Your task to perform on an android device: Search for Mexican restaurants on Maps Image 0: 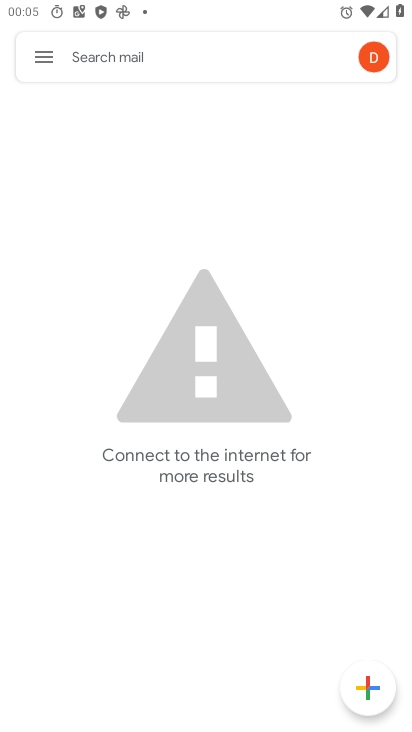
Step 0: press home button
Your task to perform on an android device: Search for Mexican restaurants on Maps Image 1: 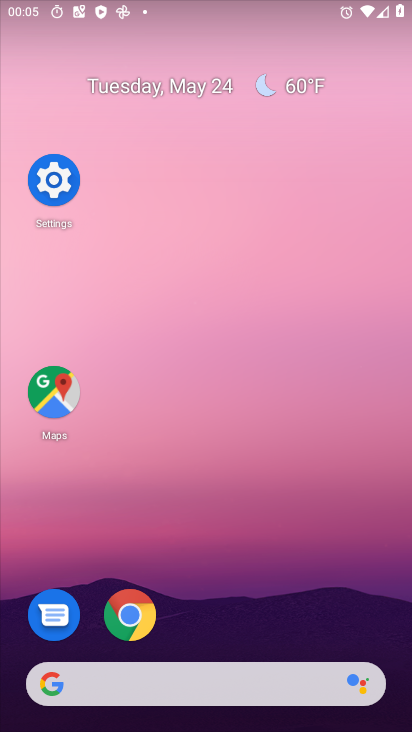
Step 1: drag from (230, 598) to (197, 87)
Your task to perform on an android device: Search for Mexican restaurants on Maps Image 2: 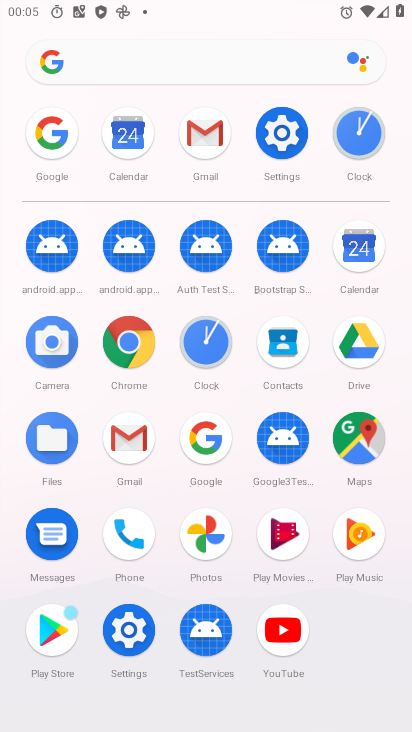
Step 2: click (367, 441)
Your task to perform on an android device: Search for Mexican restaurants on Maps Image 3: 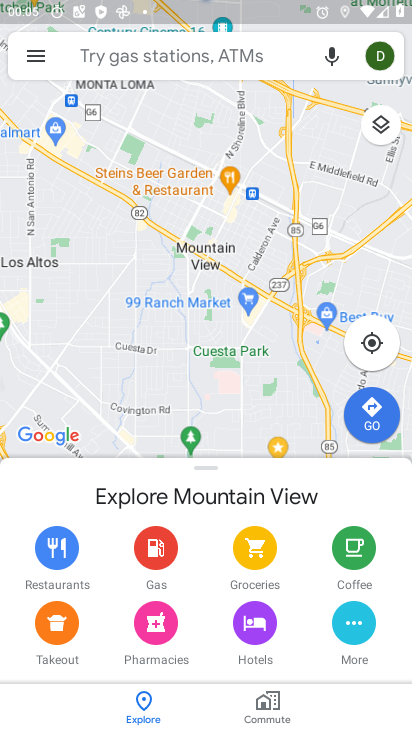
Step 3: click (160, 55)
Your task to perform on an android device: Search for Mexican restaurants on Maps Image 4: 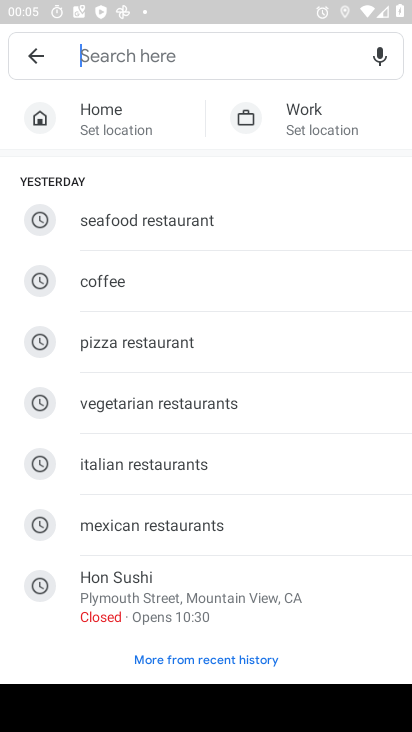
Step 4: click (193, 510)
Your task to perform on an android device: Search for Mexican restaurants on Maps Image 5: 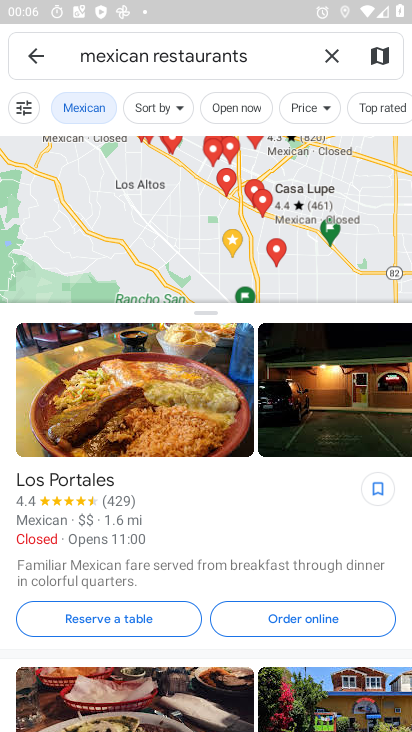
Step 5: task complete